Your task to perform on an android device: Empty the shopping cart on newegg.com. Add macbook pro 13 inch to the cart on newegg.com, then select checkout. Image 0: 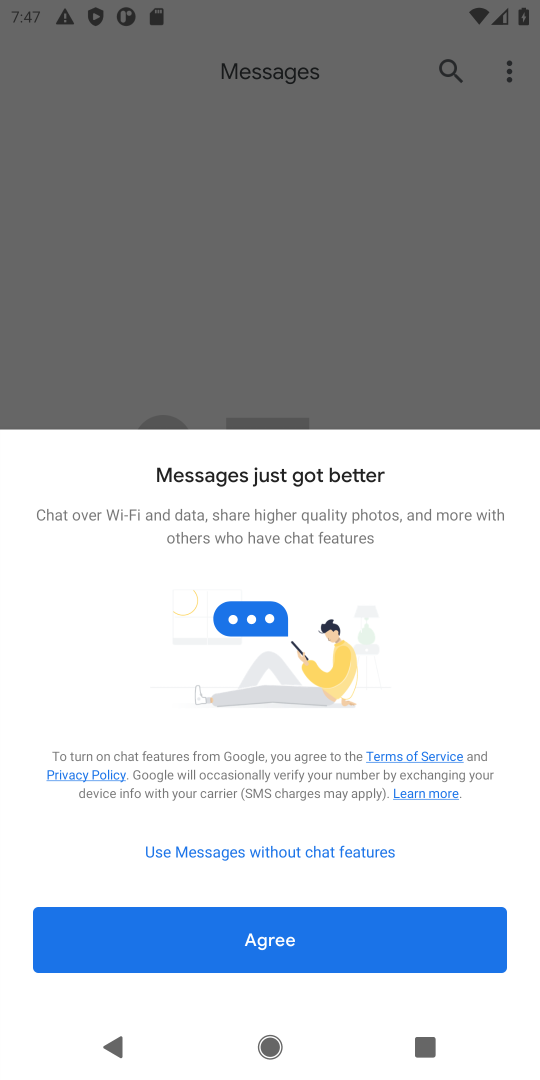
Step 0: press home button
Your task to perform on an android device: Empty the shopping cart on newegg.com. Add macbook pro 13 inch to the cart on newegg.com, then select checkout. Image 1: 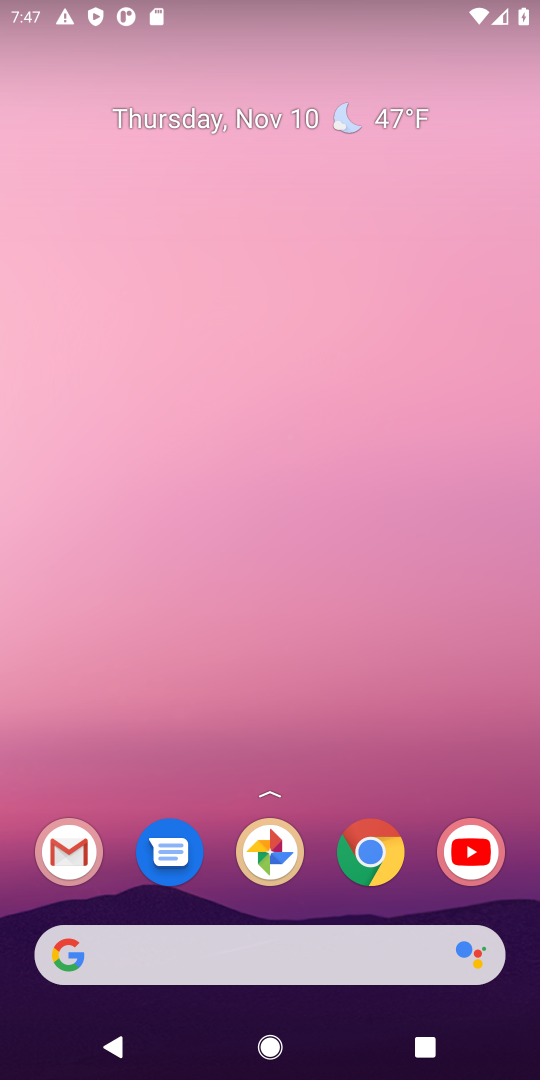
Step 1: click (369, 853)
Your task to perform on an android device: Empty the shopping cart on newegg.com. Add macbook pro 13 inch to the cart on newegg.com, then select checkout. Image 2: 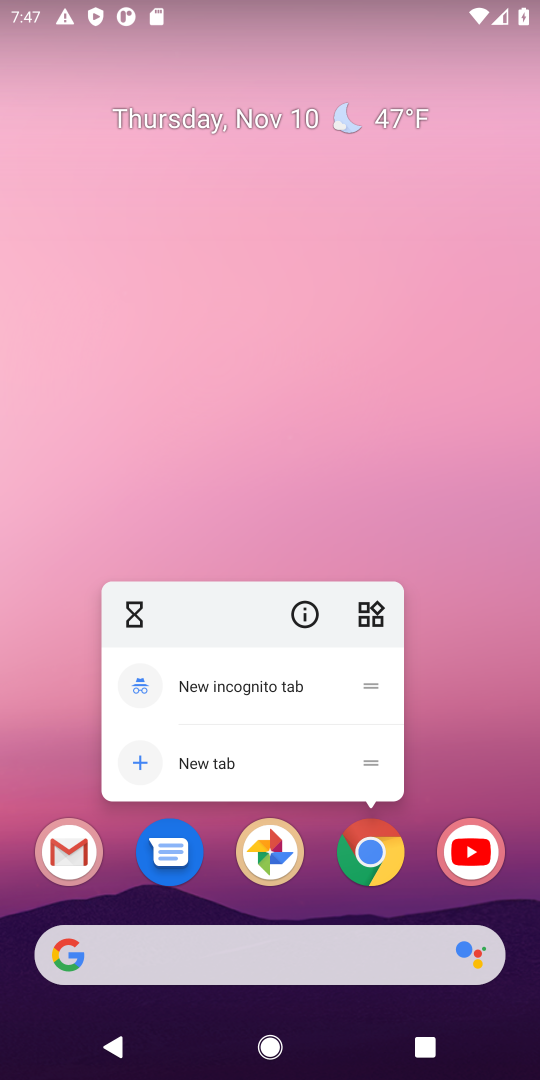
Step 2: click (372, 856)
Your task to perform on an android device: Empty the shopping cart on newegg.com. Add macbook pro 13 inch to the cart on newegg.com, then select checkout. Image 3: 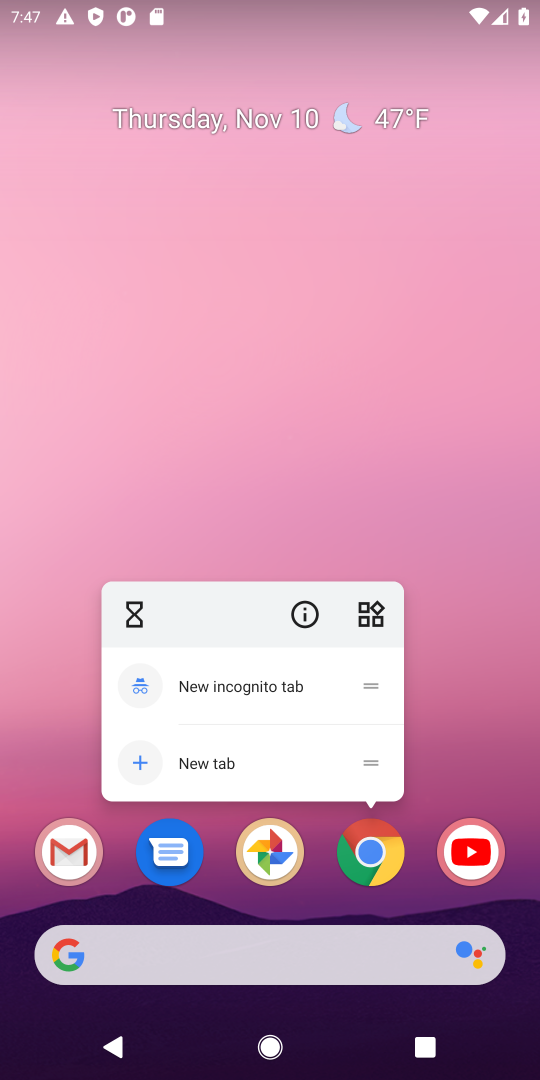
Step 3: click (372, 857)
Your task to perform on an android device: Empty the shopping cart on newegg.com. Add macbook pro 13 inch to the cart on newegg.com, then select checkout. Image 4: 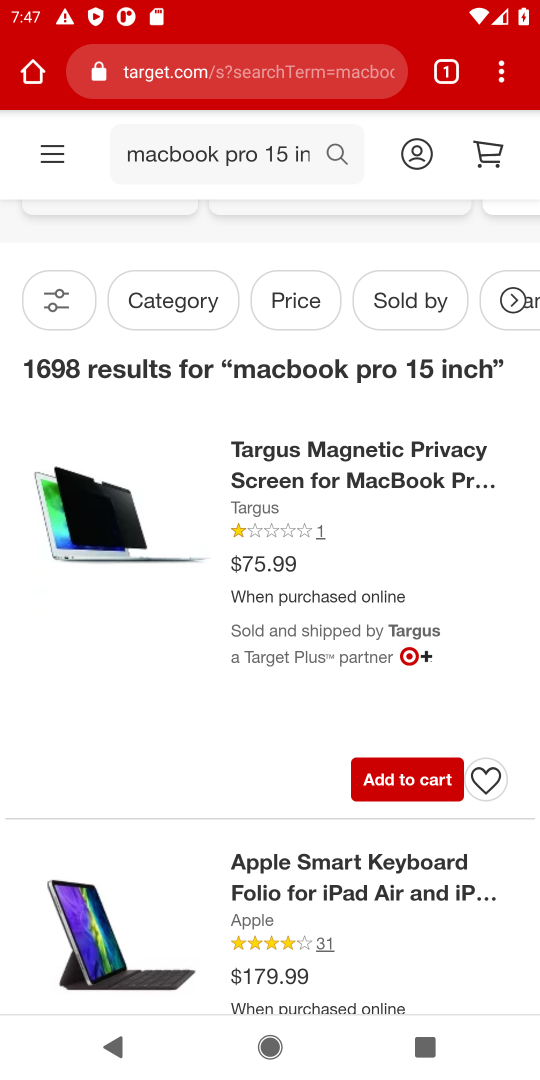
Step 4: click (311, 78)
Your task to perform on an android device: Empty the shopping cart on newegg.com. Add macbook pro 13 inch to the cart on newegg.com, then select checkout. Image 5: 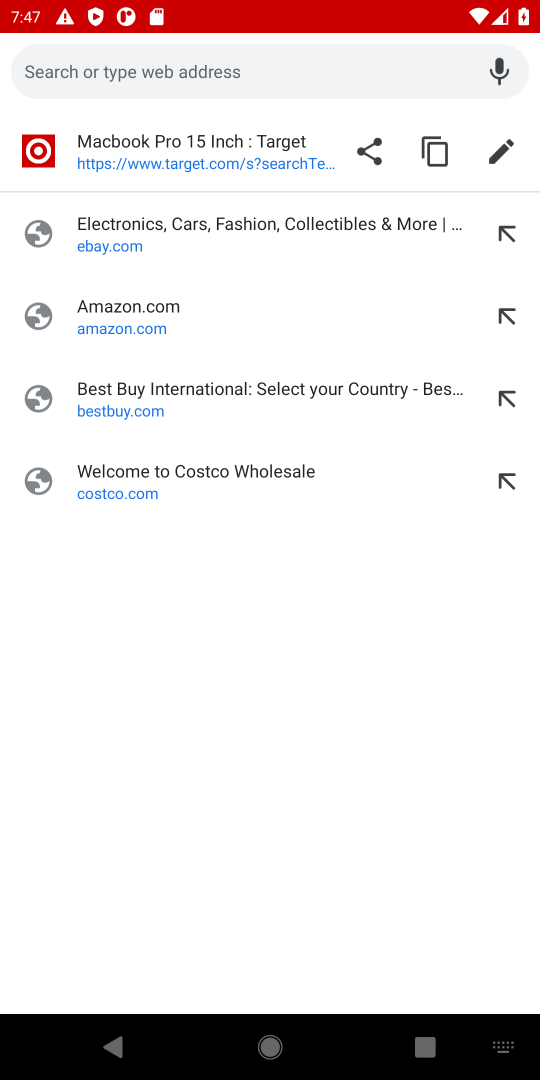
Step 5: type "newegg.com"
Your task to perform on an android device: Empty the shopping cart on newegg.com. Add macbook pro 13 inch to the cart on newegg.com, then select checkout. Image 6: 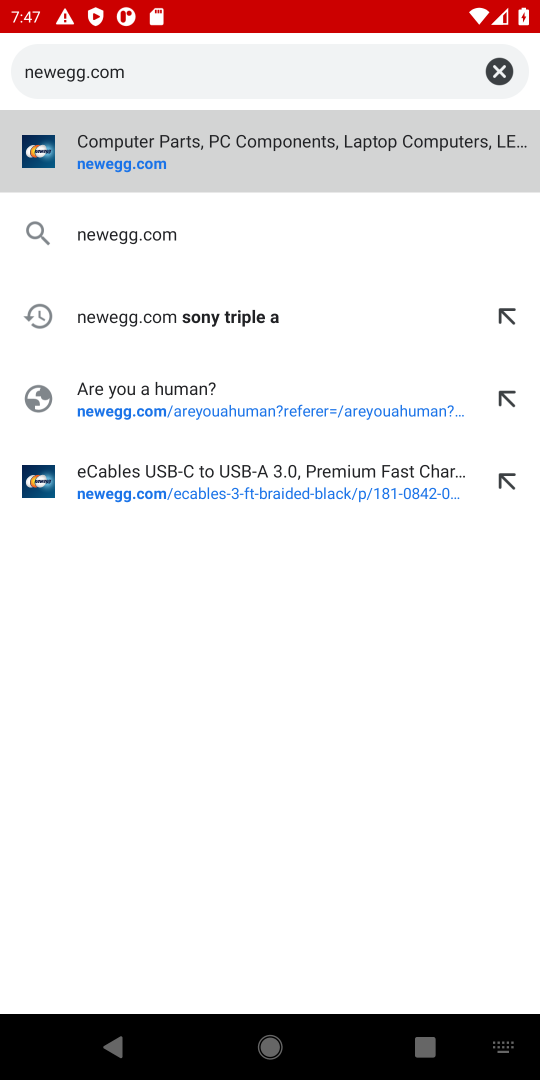
Step 6: press enter
Your task to perform on an android device: Empty the shopping cart on newegg.com. Add macbook pro 13 inch to the cart on newegg.com, then select checkout. Image 7: 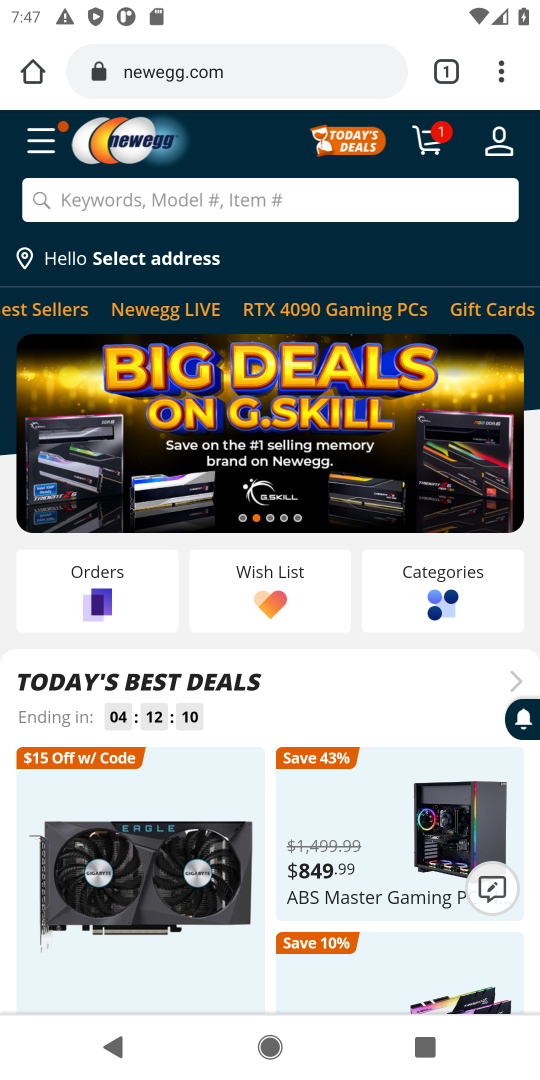
Step 7: click (187, 194)
Your task to perform on an android device: Empty the shopping cart on newegg.com. Add macbook pro 13 inch to the cart on newegg.com, then select checkout. Image 8: 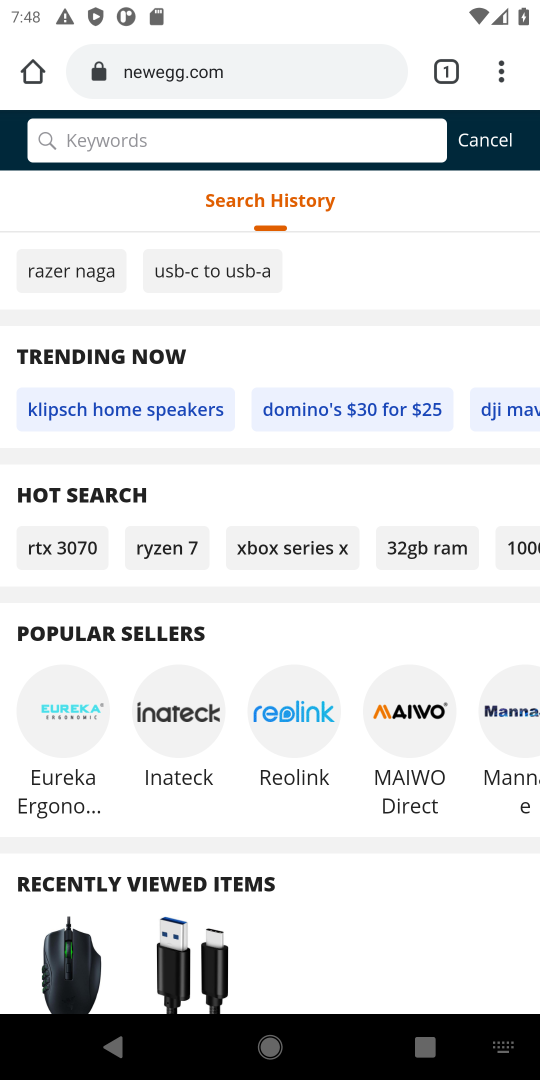
Step 8: type "macbook pro 13 inch"
Your task to perform on an android device: Empty the shopping cart on newegg.com. Add macbook pro 13 inch to the cart on newegg.com, then select checkout. Image 9: 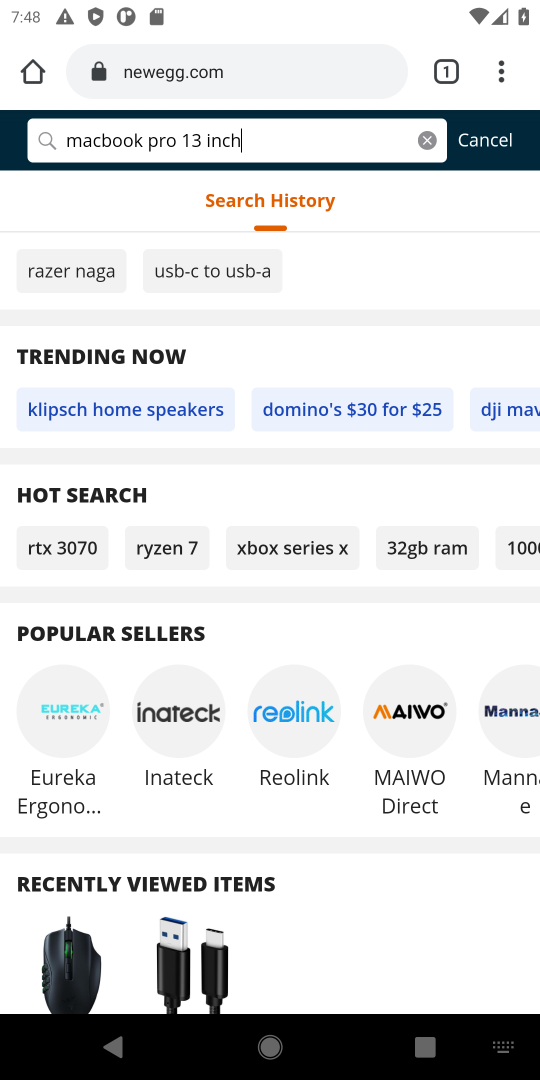
Step 9: press enter
Your task to perform on an android device: Empty the shopping cart on newegg.com. Add macbook pro 13 inch to the cart on newegg.com, then select checkout. Image 10: 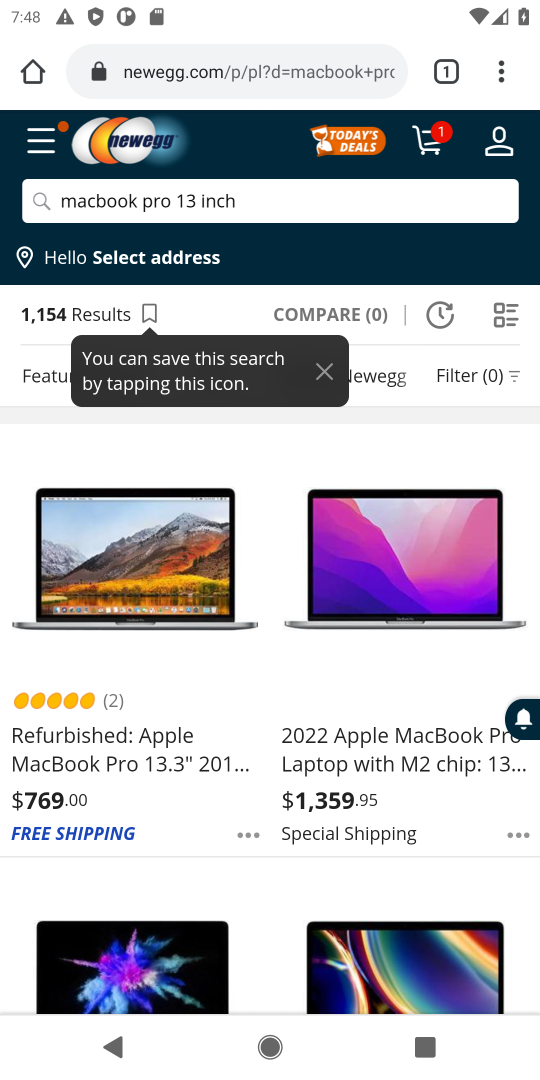
Step 10: task complete